Your task to perform on an android device: install app "Messenger Lite" Image 0: 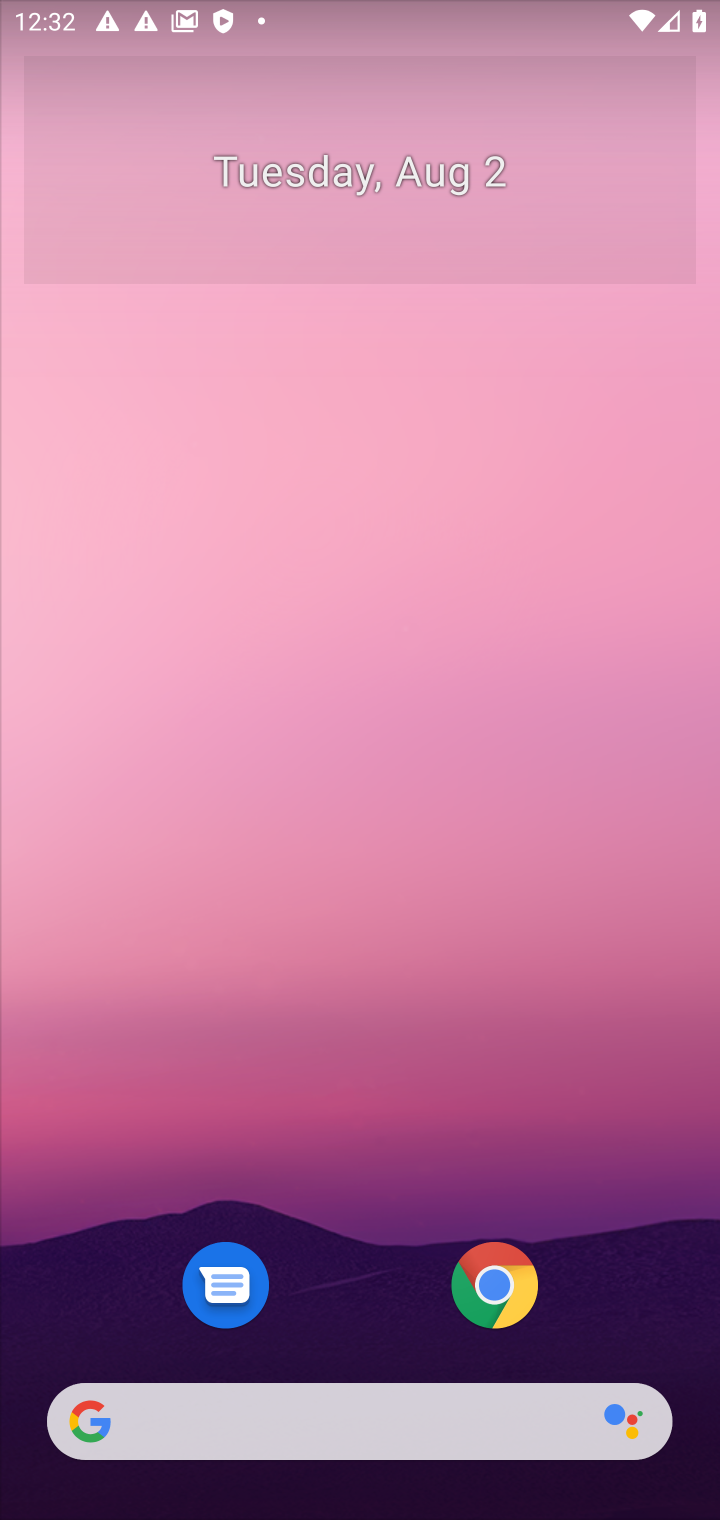
Step 0: drag from (392, 939) to (418, 274)
Your task to perform on an android device: install app "Messenger Lite" Image 1: 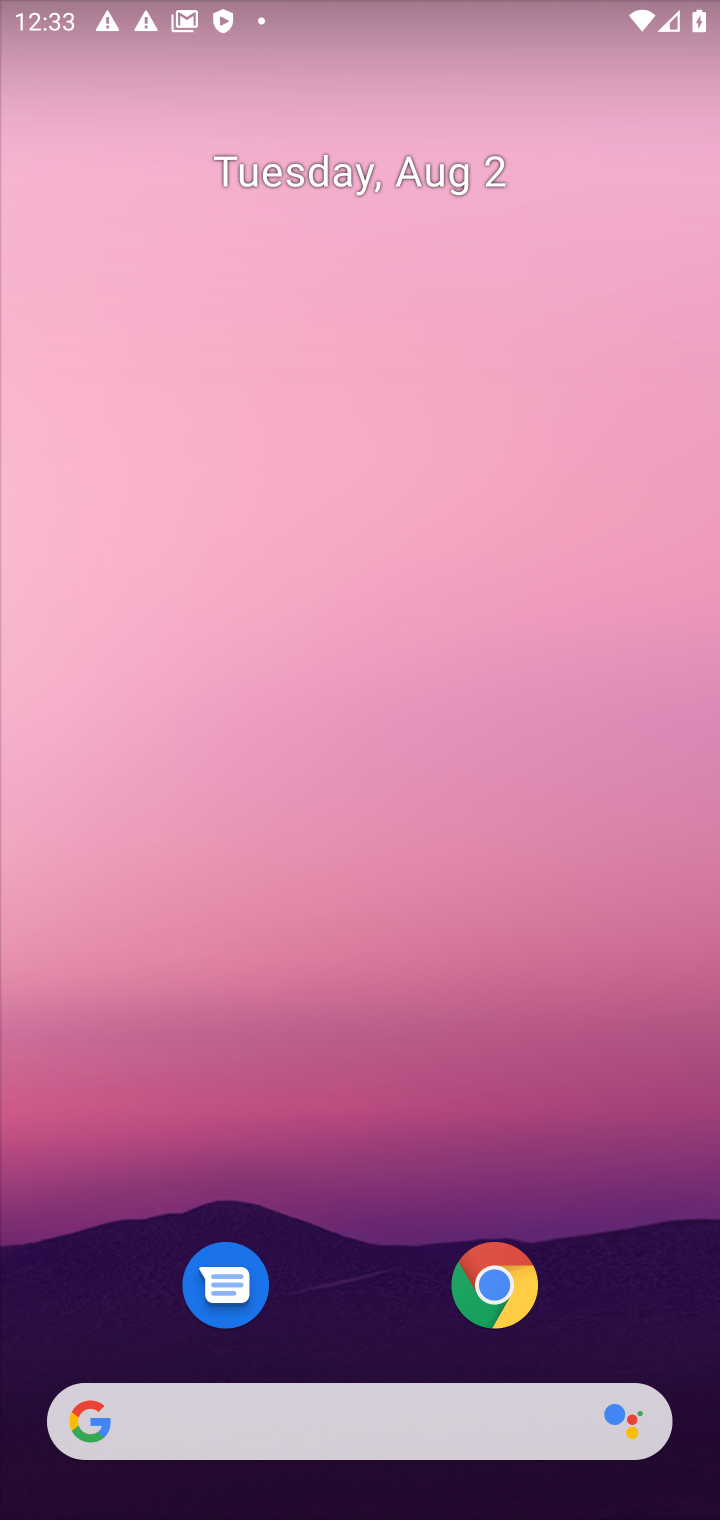
Step 1: drag from (373, 875) to (404, 343)
Your task to perform on an android device: install app "Messenger Lite" Image 2: 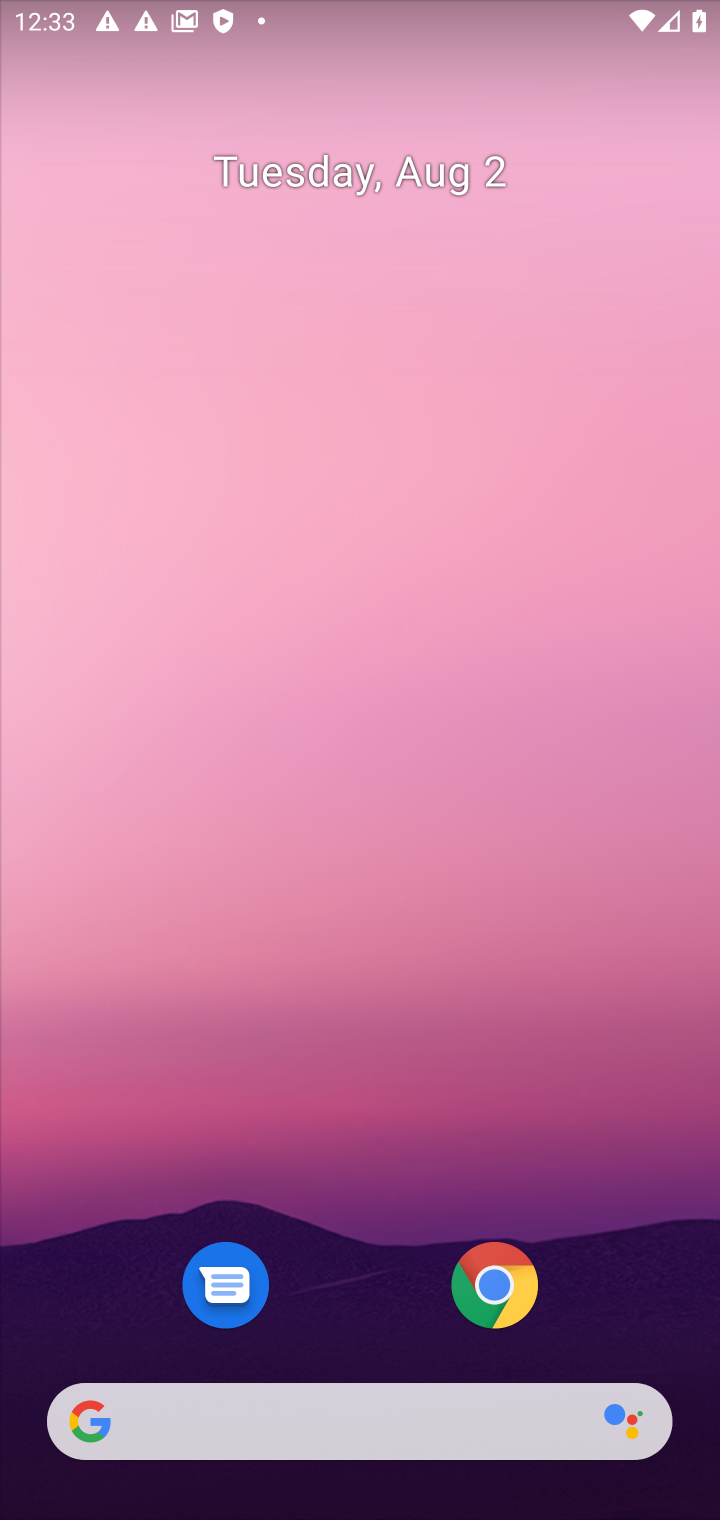
Step 2: drag from (368, 1174) to (463, 198)
Your task to perform on an android device: install app "Messenger Lite" Image 3: 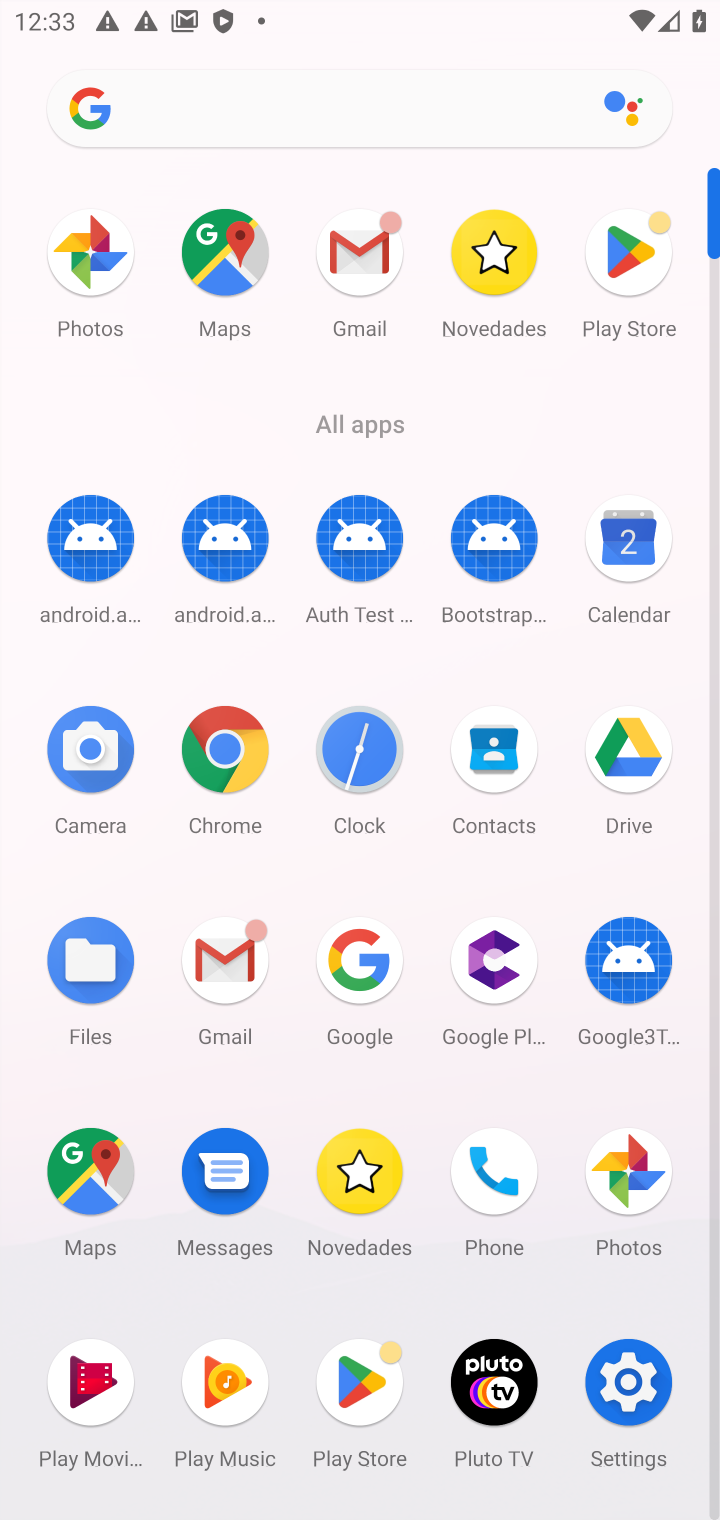
Step 3: click (359, 1387)
Your task to perform on an android device: install app "Messenger Lite" Image 4: 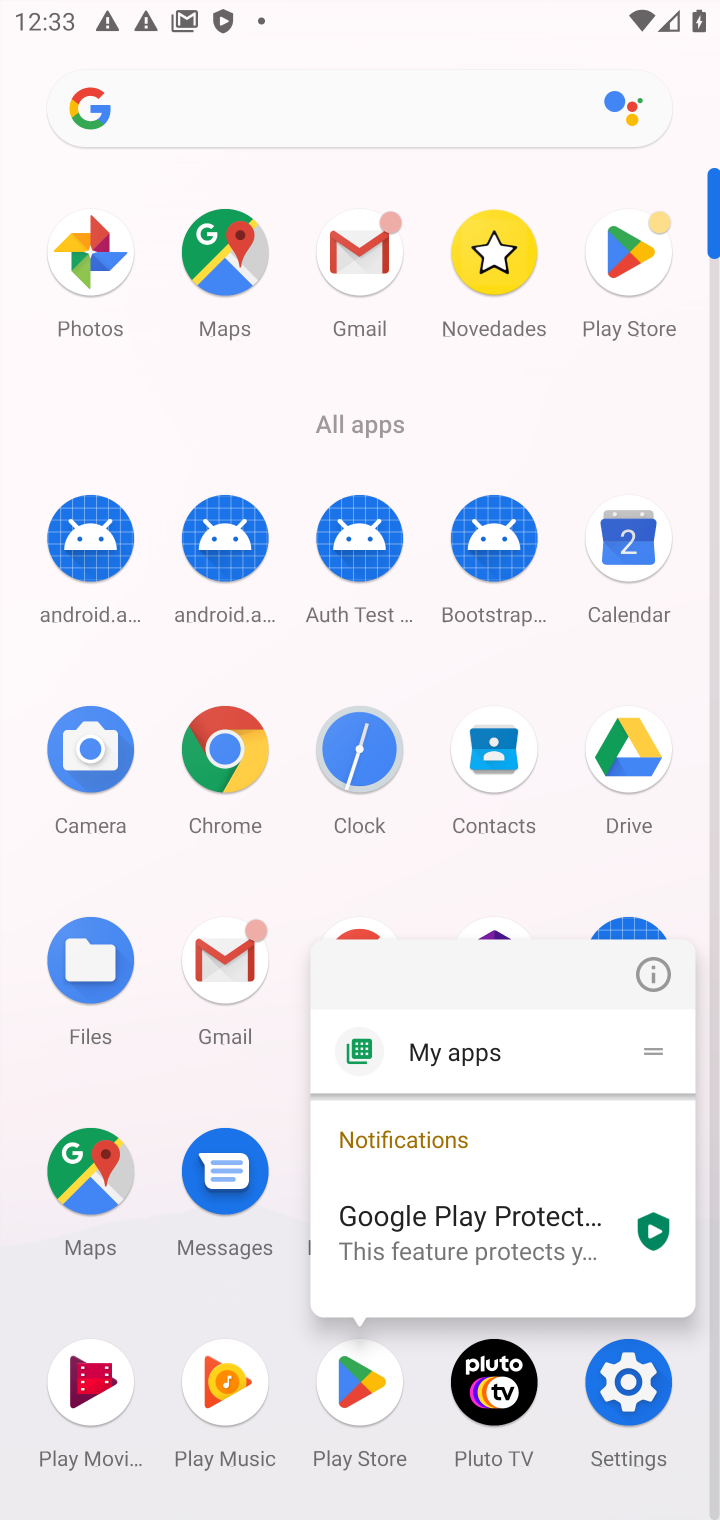
Step 4: click (377, 1387)
Your task to perform on an android device: install app "Messenger Lite" Image 5: 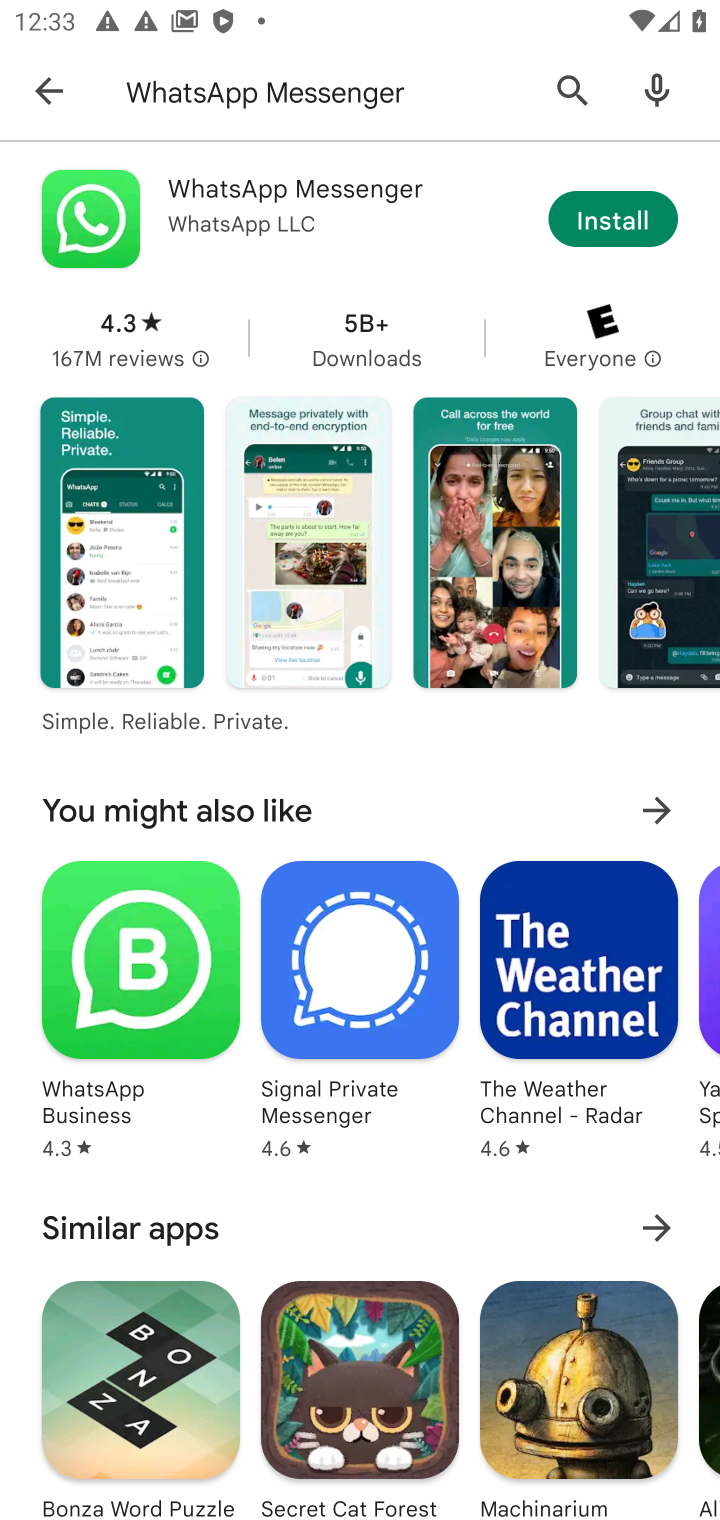
Step 5: click (460, 105)
Your task to perform on an android device: install app "Messenger Lite" Image 6: 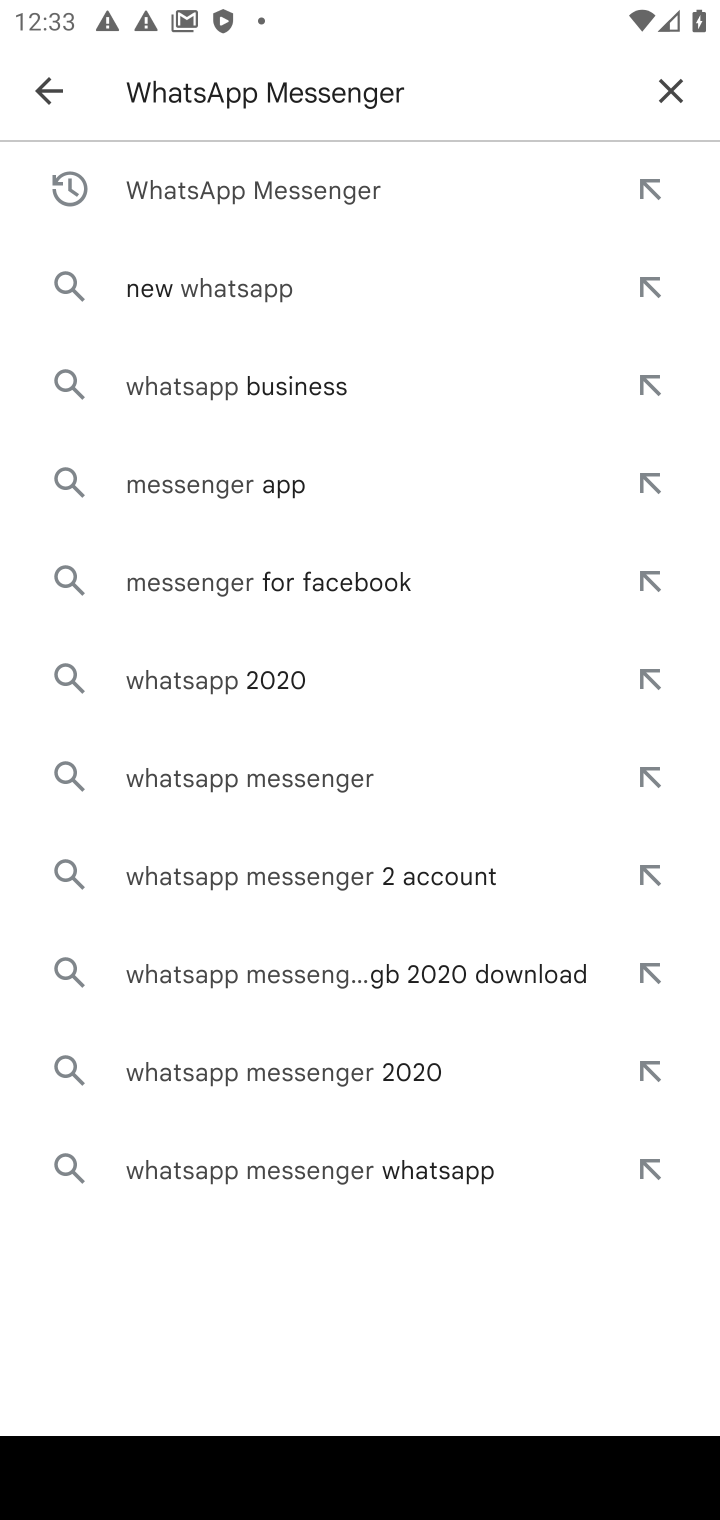
Step 6: click (670, 76)
Your task to perform on an android device: install app "Messenger Lite" Image 7: 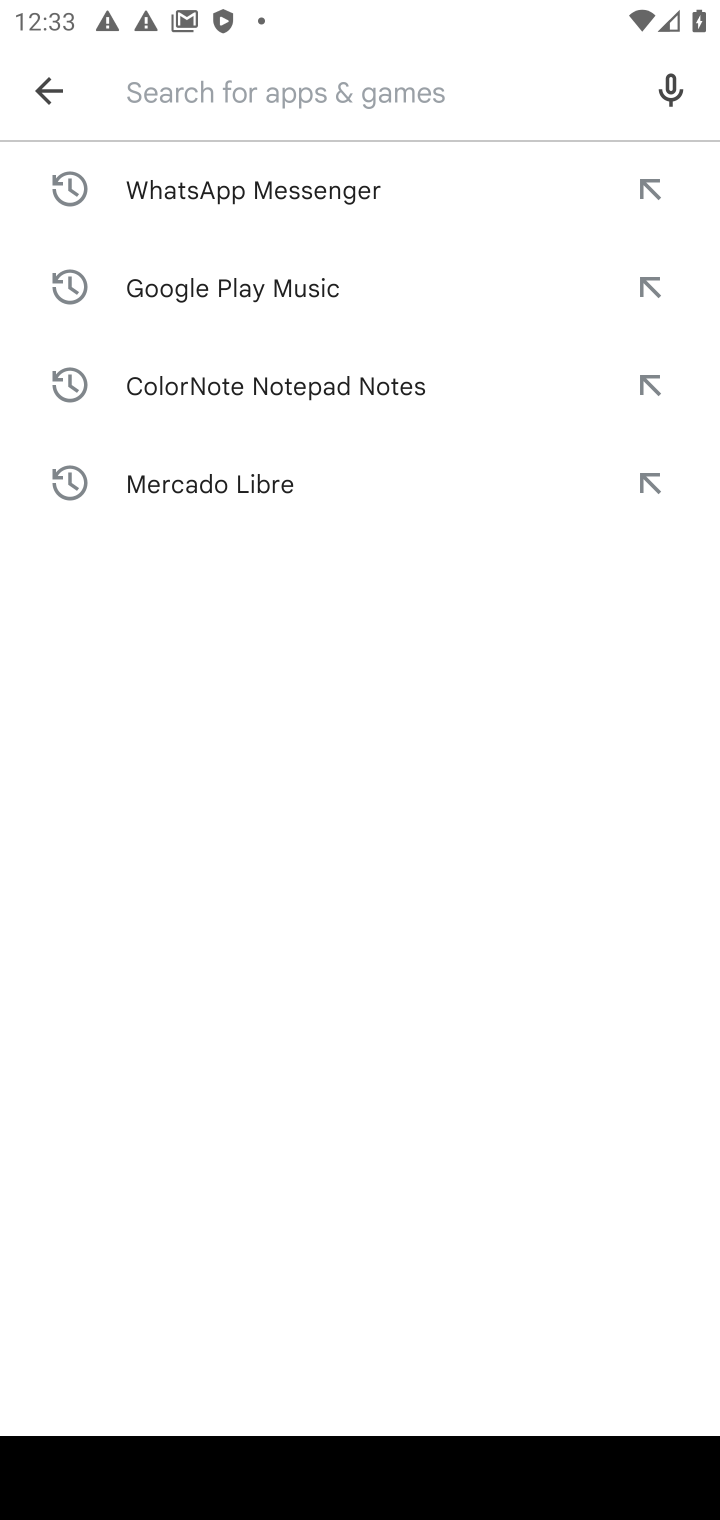
Step 7: type "Messenger Lite"
Your task to perform on an android device: install app "Messenger Lite" Image 8: 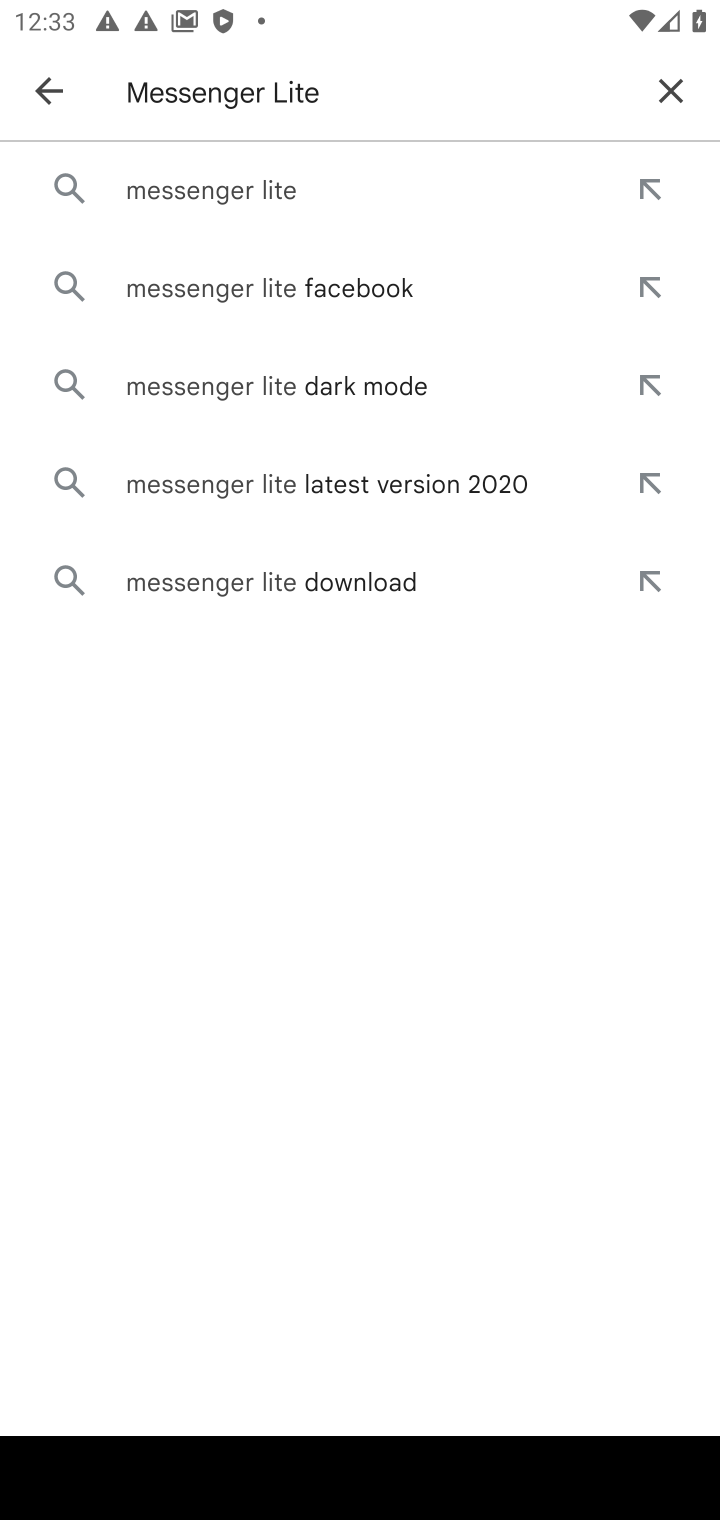
Step 8: click (235, 205)
Your task to perform on an android device: install app "Messenger Lite" Image 9: 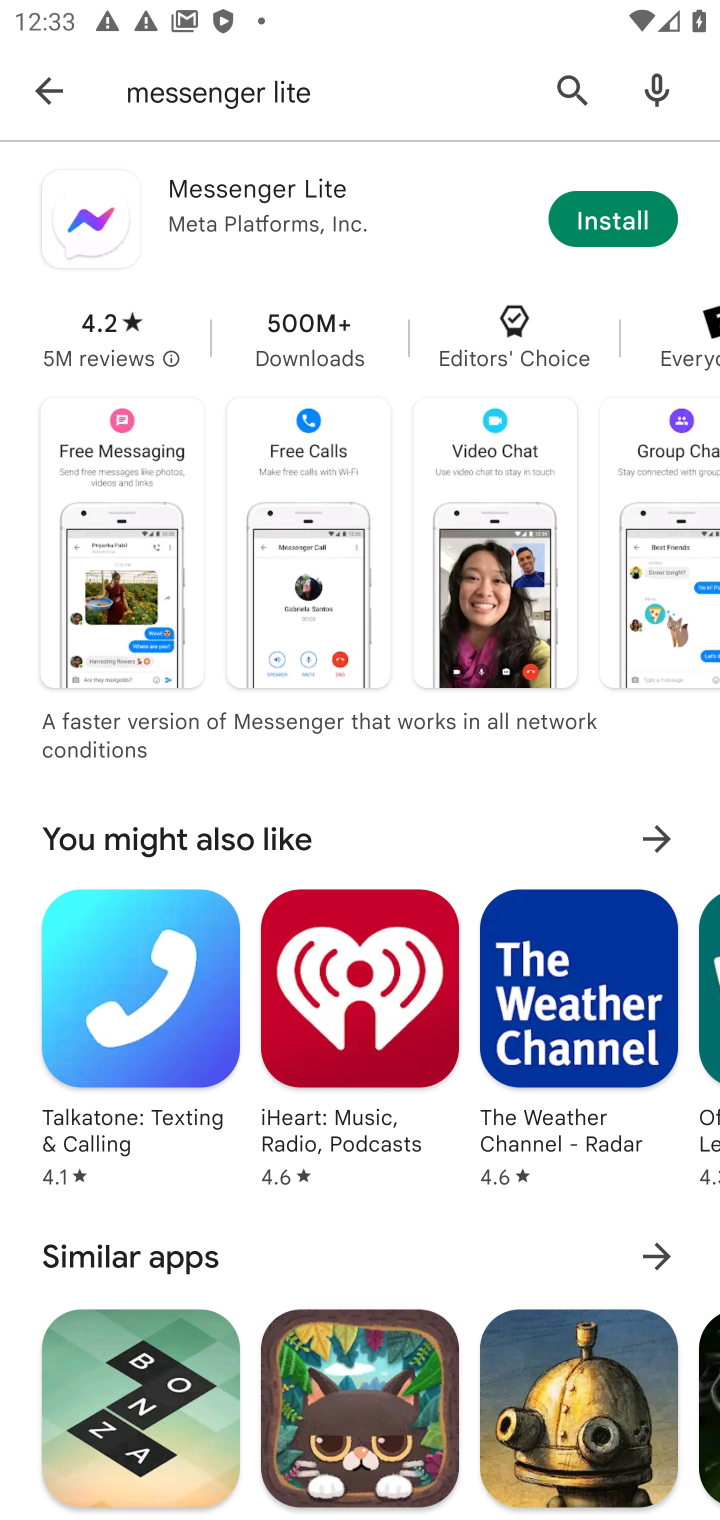
Step 9: click (637, 228)
Your task to perform on an android device: install app "Messenger Lite" Image 10: 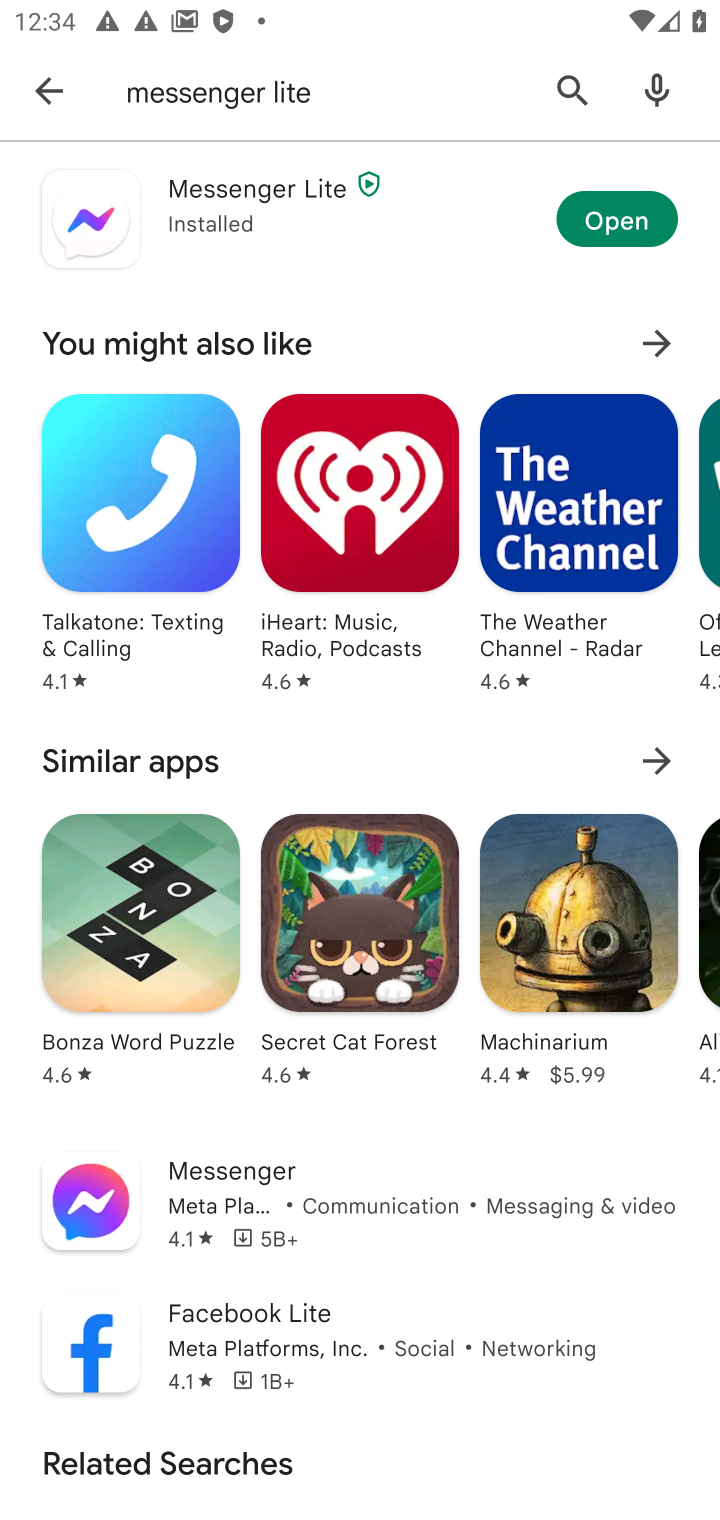
Step 10: task complete